Your task to perform on an android device: add a contact Image 0: 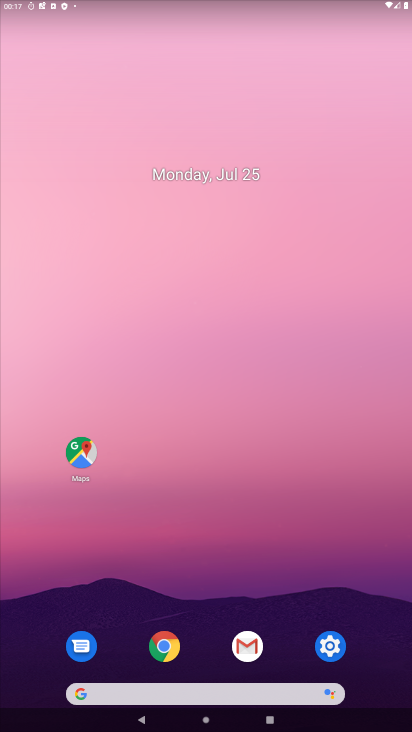
Step 0: drag from (265, 690) to (194, 48)
Your task to perform on an android device: add a contact Image 1: 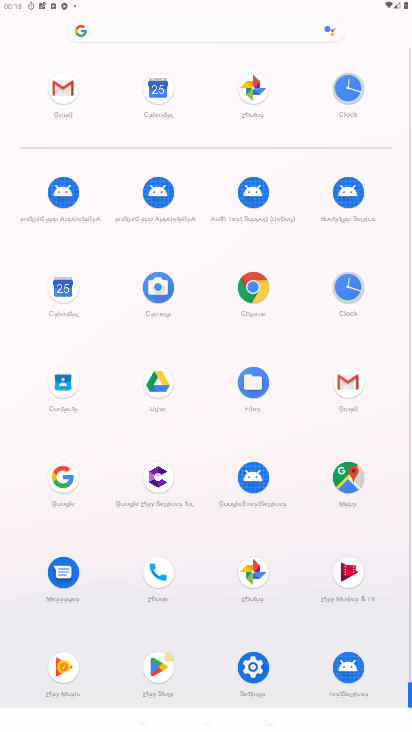
Step 1: click (167, 581)
Your task to perform on an android device: add a contact Image 2: 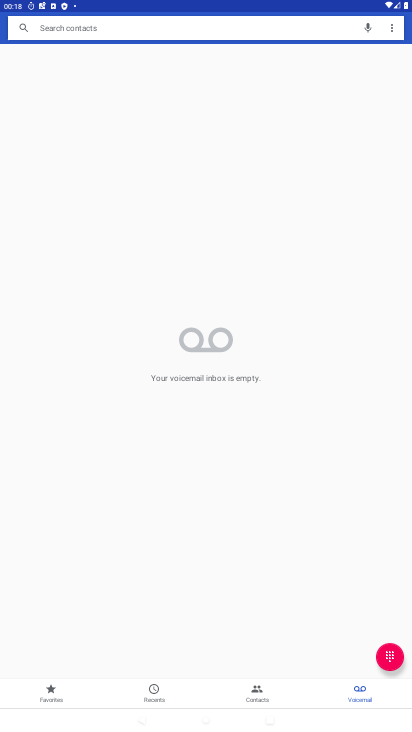
Step 2: click (254, 698)
Your task to perform on an android device: add a contact Image 3: 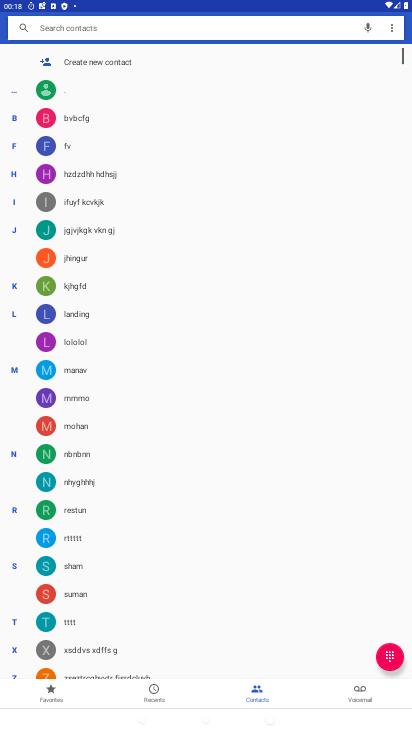
Step 3: click (100, 66)
Your task to perform on an android device: add a contact Image 4: 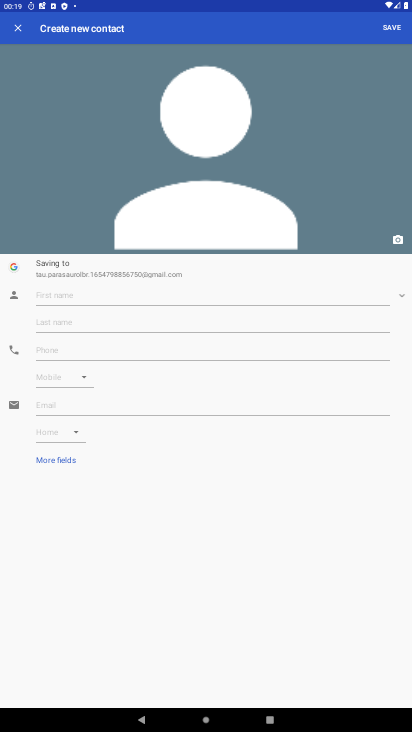
Step 4: click (44, 296)
Your task to perform on an android device: add a contact Image 5: 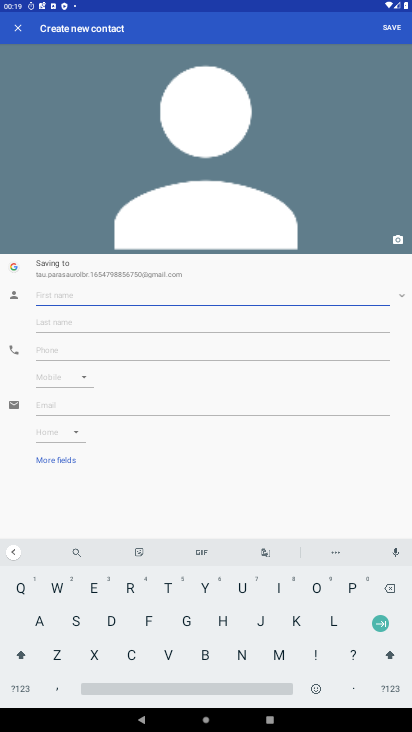
Step 5: click (187, 620)
Your task to perform on an android device: add a contact Image 6: 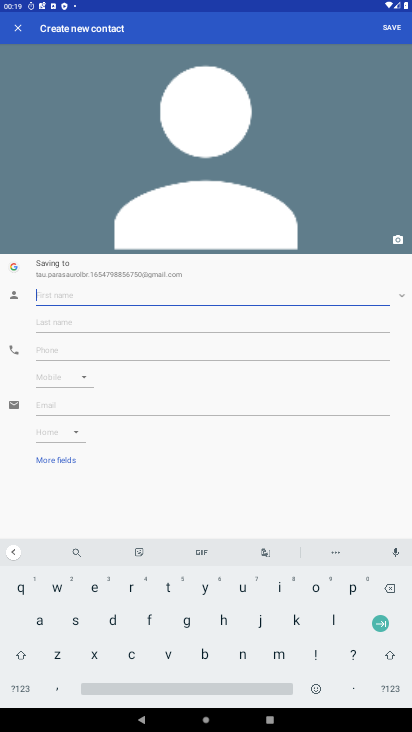
Step 6: click (131, 629)
Your task to perform on an android device: add a contact Image 7: 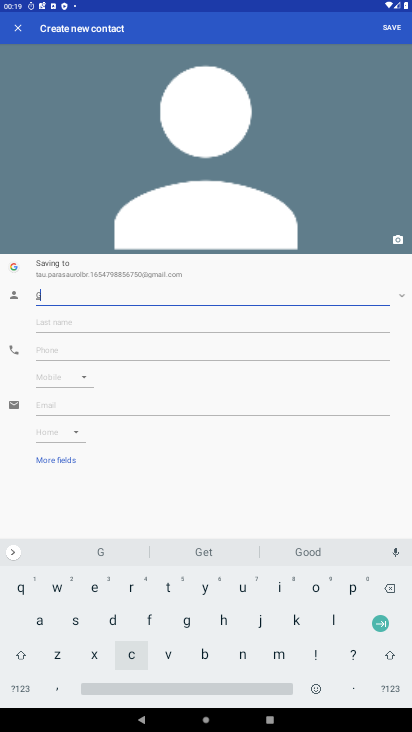
Step 7: click (108, 632)
Your task to perform on an android device: add a contact Image 8: 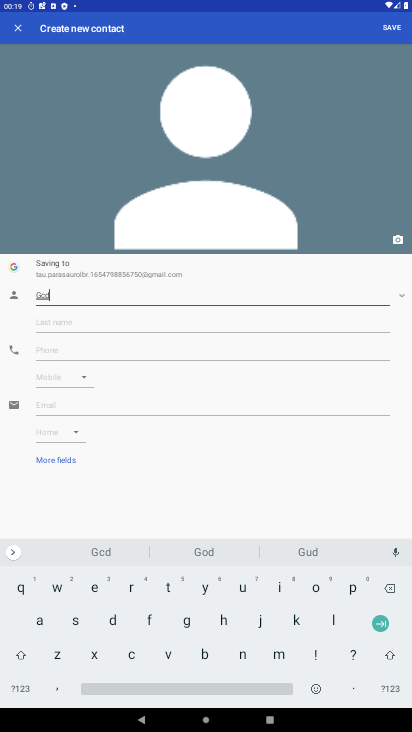
Step 8: click (76, 346)
Your task to perform on an android device: add a contact Image 9: 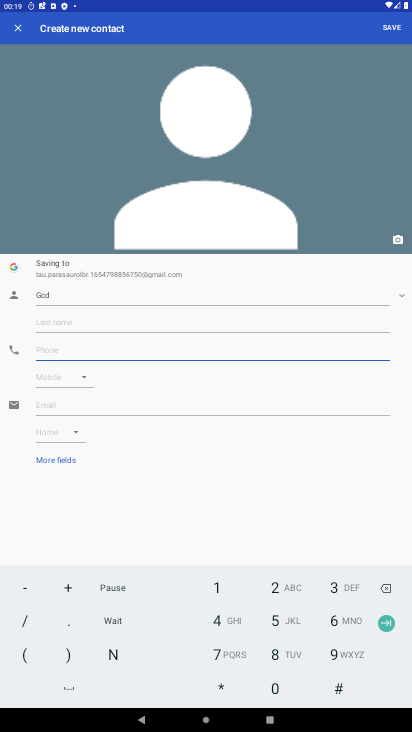
Step 9: click (208, 616)
Your task to perform on an android device: add a contact Image 10: 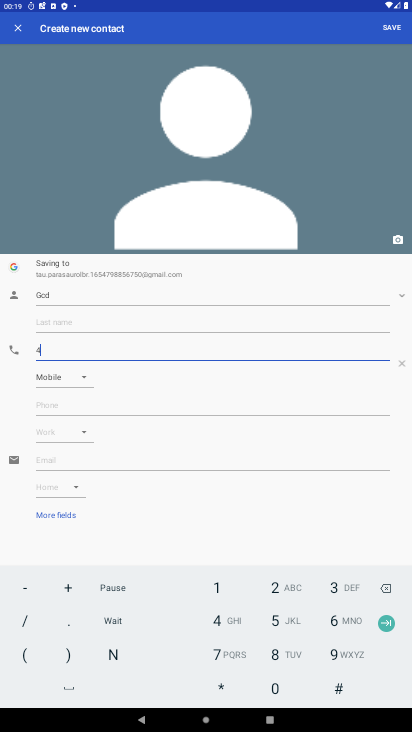
Step 10: click (296, 638)
Your task to perform on an android device: add a contact Image 11: 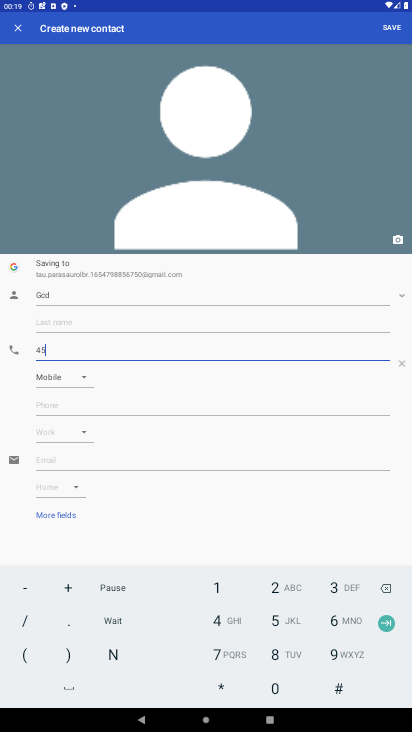
Step 11: click (279, 659)
Your task to perform on an android device: add a contact Image 12: 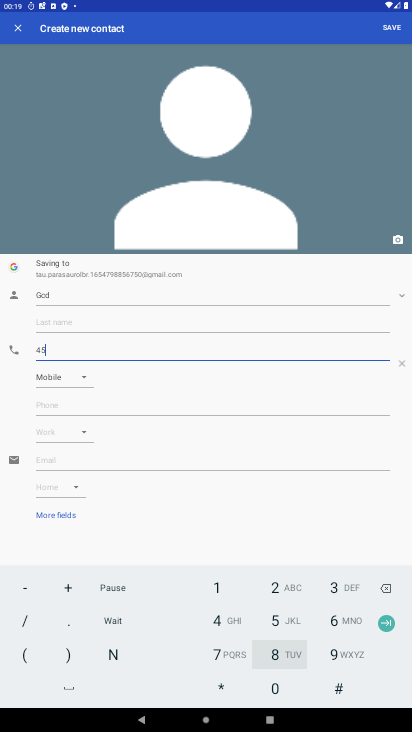
Step 12: click (272, 642)
Your task to perform on an android device: add a contact Image 13: 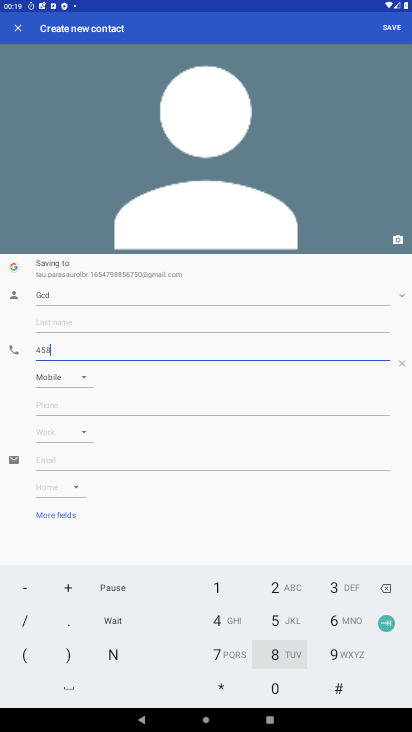
Step 13: click (300, 637)
Your task to perform on an android device: add a contact Image 14: 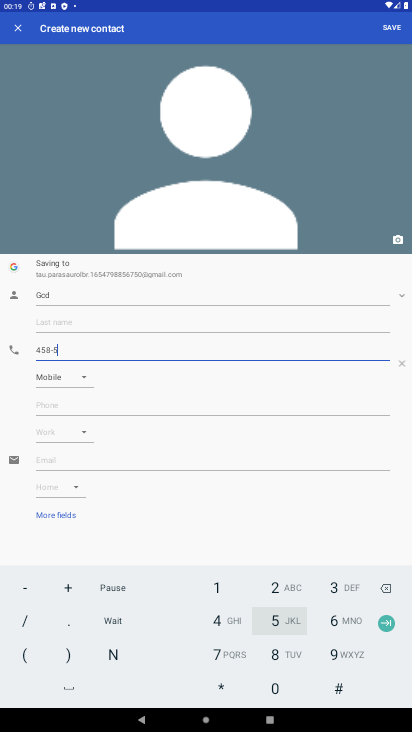
Step 14: click (307, 649)
Your task to perform on an android device: add a contact Image 15: 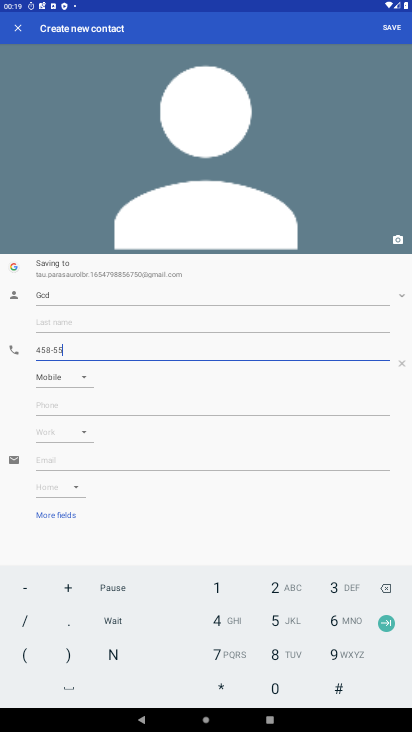
Step 15: click (324, 664)
Your task to perform on an android device: add a contact Image 16: 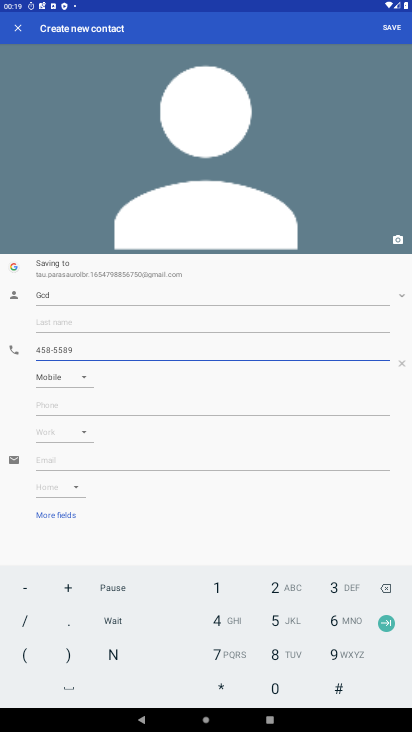
Step 16: click (387, 23)
Your task to perform on an android device: add a contact Image 17: 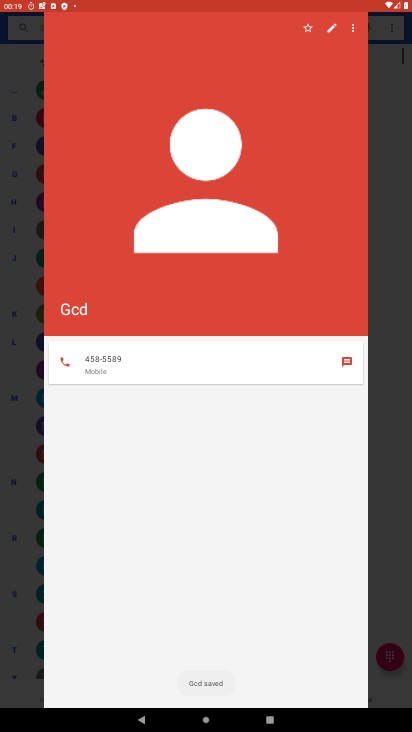
Step 17: task complete